Your task to perform on an android device: Search for vegetarian restaurants on Maps Image 0: 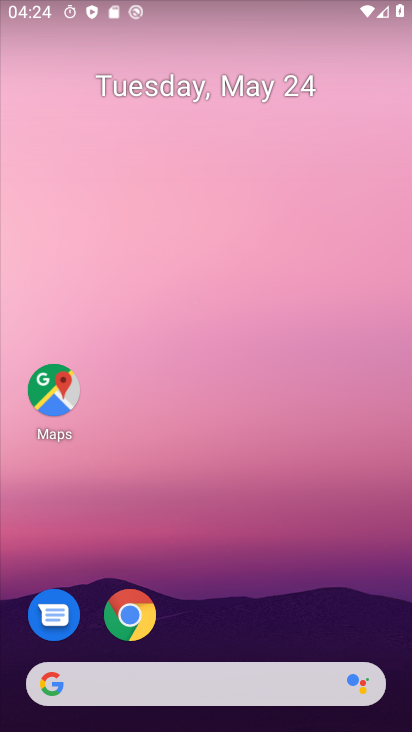
Step 0: click (46, 388)
Your task to perform on an android device: Search for vegetarian restaurants on Maps Image 1: 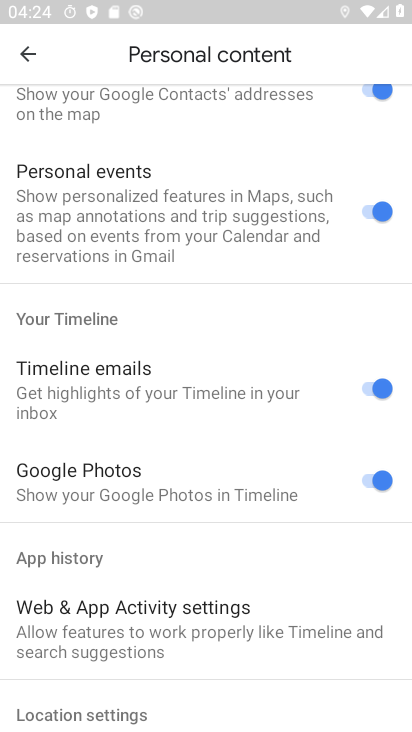
Step 1: click (23, 46)
Your task to perform on an android device: Search for vegetarian restaurants on Maps Image 2: 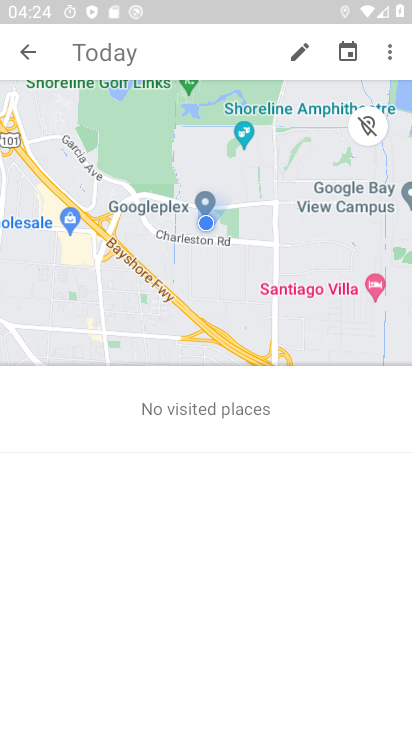
Step 2: click (47, 44)
Your task to perform on an android device: Search for vegetarian restaurants on Maps Image 3: 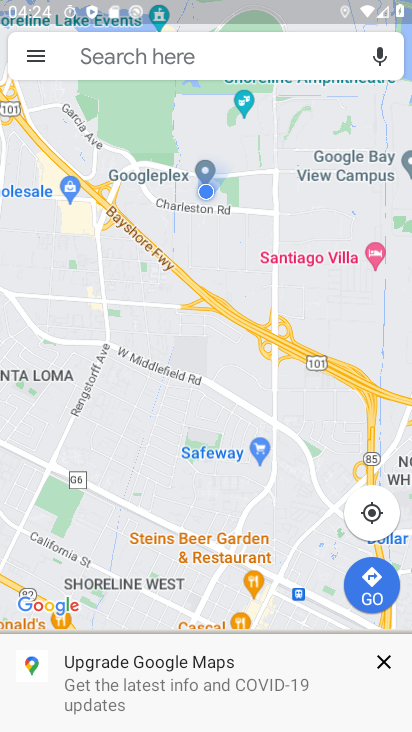
Step 3: click (158, 61)
Your task to perform on an android device: Search for vegetarian restaurants on Maps Image 4: 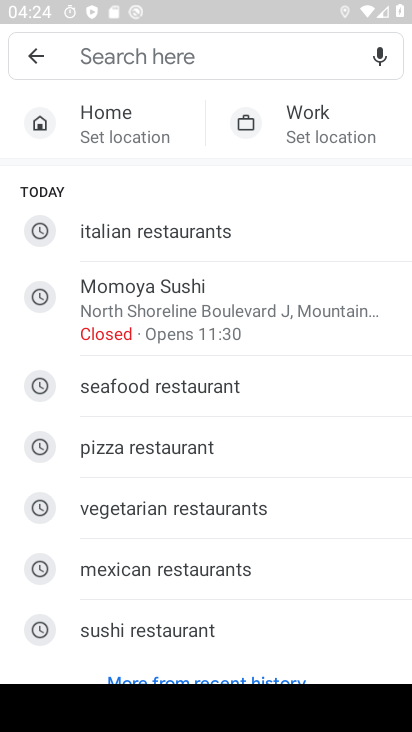
Step 4: click (126, 499)
Your task to perform on an android device: Search for vegetarian restaurants on Maps Image 5: 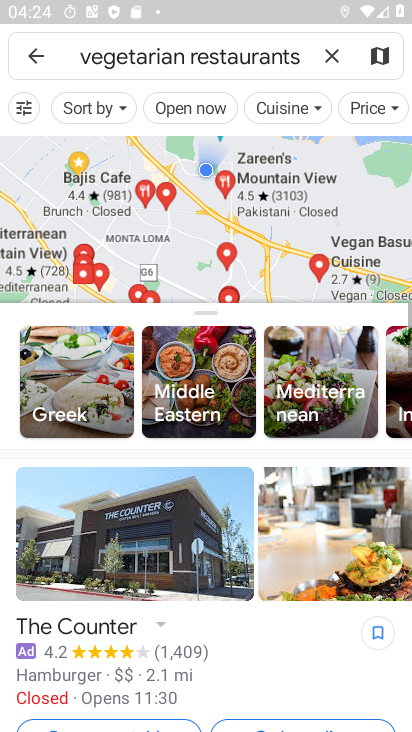
Step 5: task complete